Your task to perform on an android device: Go to privacy settings Image 0: 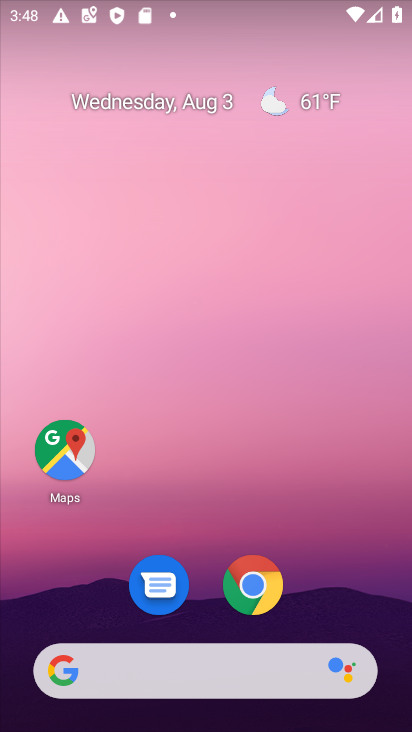
Step 0: drag from (390, 716) to (297, 82)
Your task to perform on an android device: Go to privacy settings Image 1: 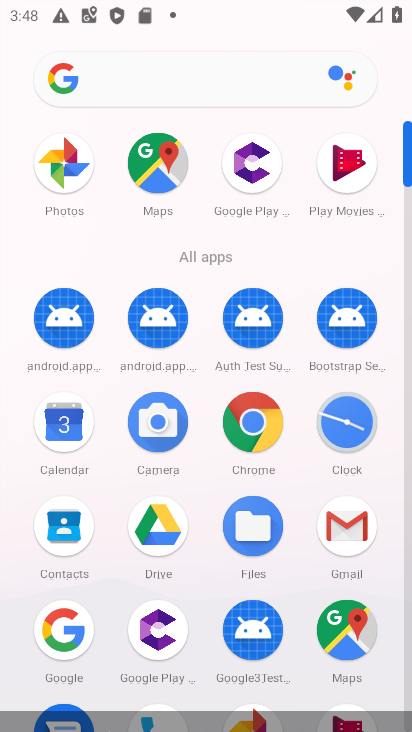
Step 1: drag from (199, 637) to (164, 251)
Your task to perform on an android device: Go to privacy settings Image 2: 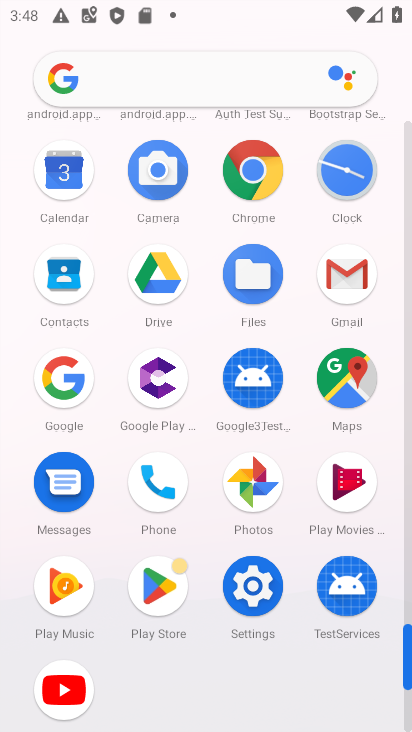
Step 2: click (253, 588)
Your task to perform on an android device: Go to privacy settings Image 3: 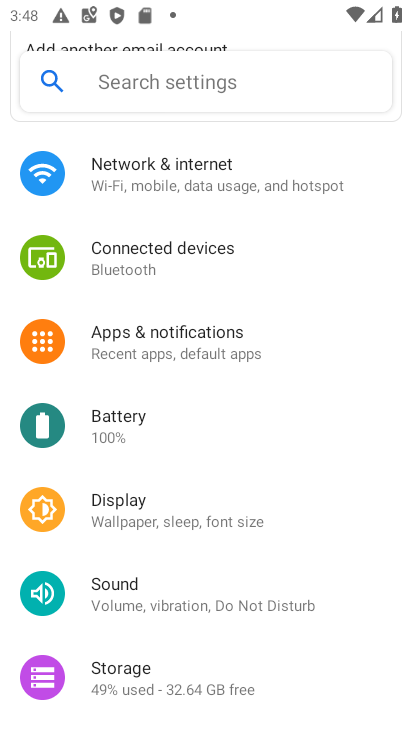
Step 3: drag from (344, 644) to (298, 243)
Your task to perform on an android device: Go to privacy settings Image 4: 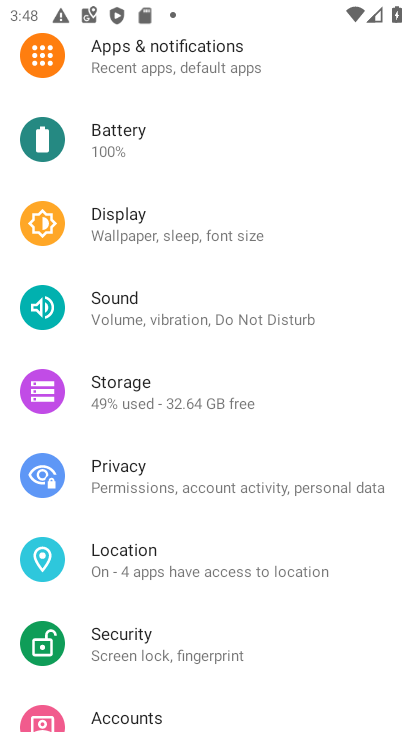
Step 4: drag from (342, 628) to (304, 241)
Your task to perform on an android device: Go to privacy settings Image 5: 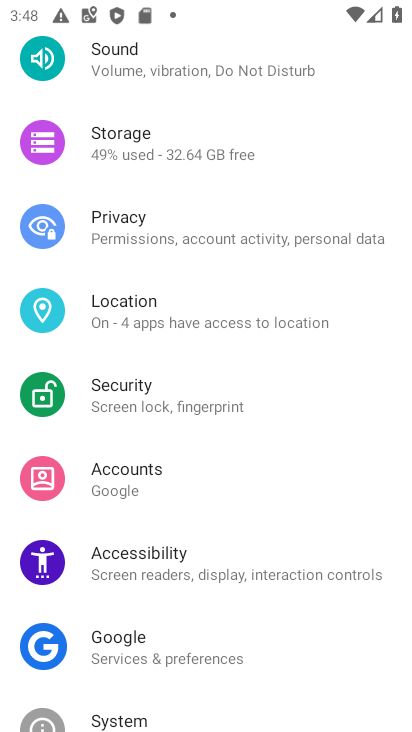
Step 5: click (127, 215)
Your task to perform on an android device: Go to privacy settings Image 6: 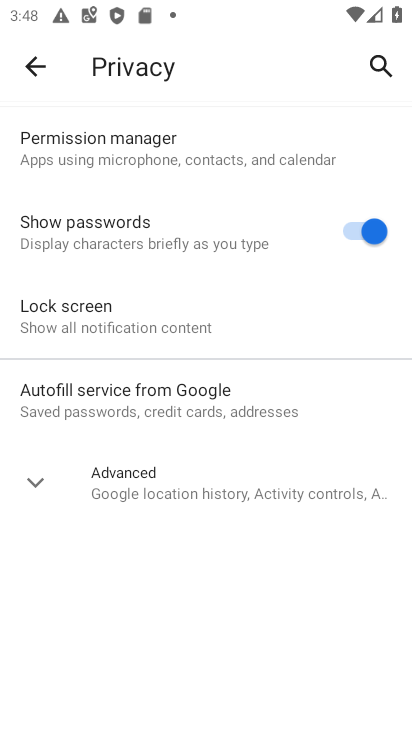
Step 6: task complete